Your task to perform on an android device: change keyboard looks Image 0: 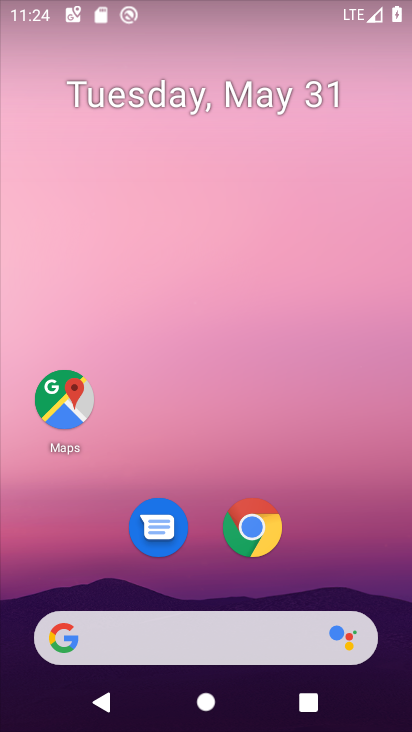
Step 0: drag from (345, 606) to (343, 24)
Your task to perform on an android device: change keyboard looks Image 1: 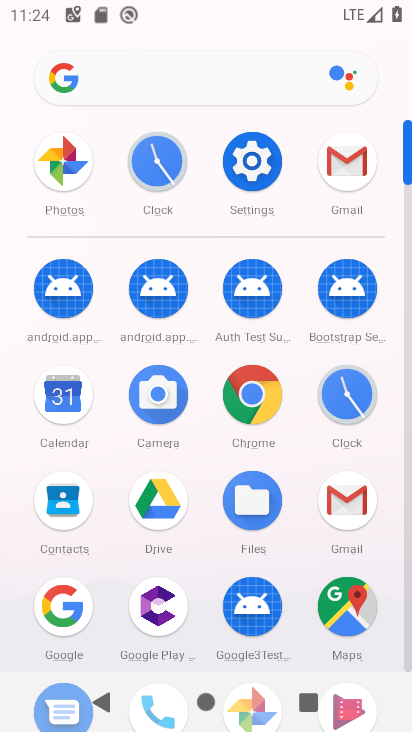
Step 1: click (242, 159)
Your task to perform on an android device: change keyboard looks Image 2: 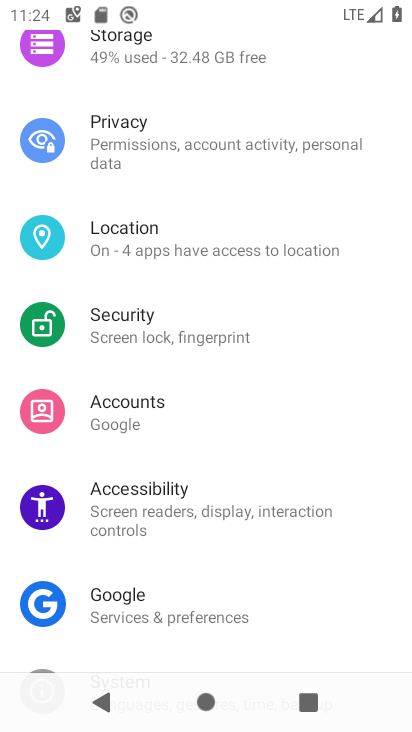
Step 2: drag from (289, 607) to (300, 330)
Your task to perform on an android device: change keyboard looks Image 3: 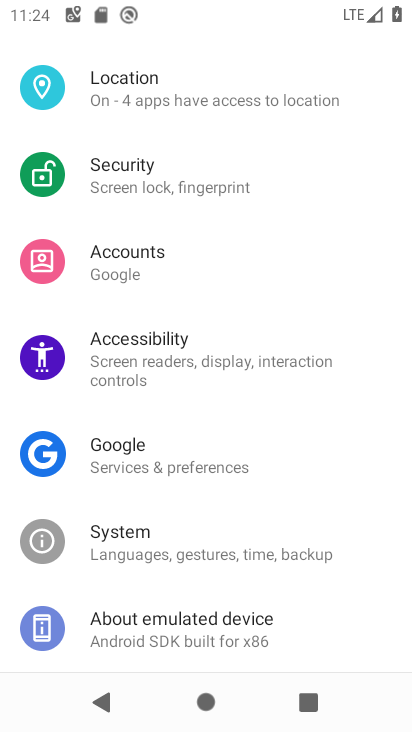
Step 3: click (123, 538)
Your task to perform on an android device: change keyboard looks Image 4: 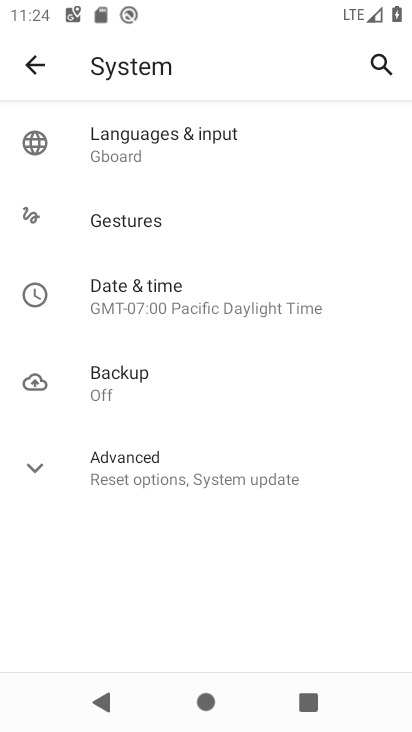
Step 4: click (122, 161)
Your task to perform on an android device: change keyboard looks Image 5: 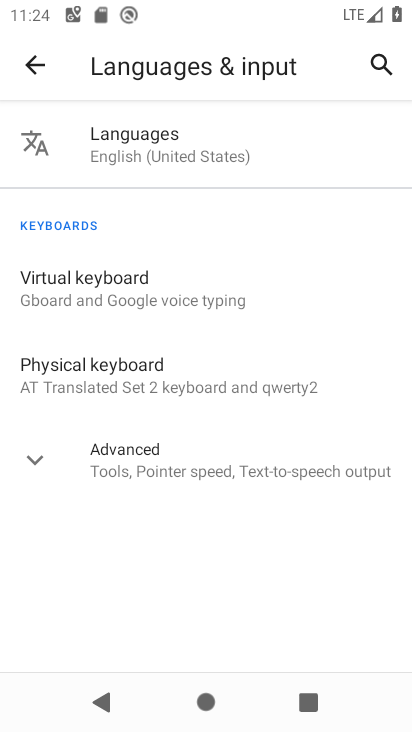
Step 5: click (69, 292)
Your task to perform on an android device: change keyboard looks Image 6: 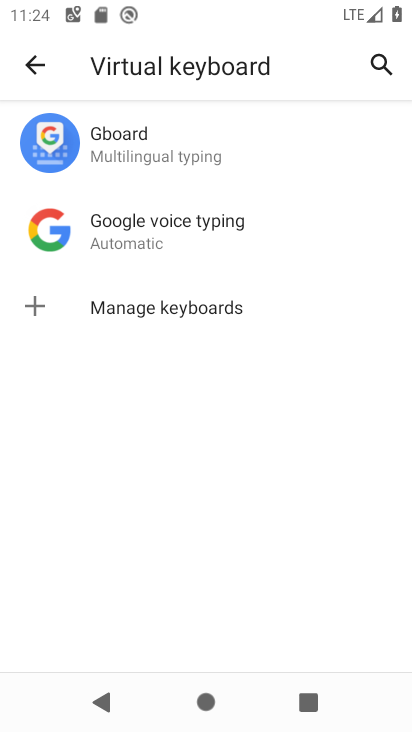
Step 6: click (124, 150)
Your task to perform on an android device: change keyboard looks Image 7: 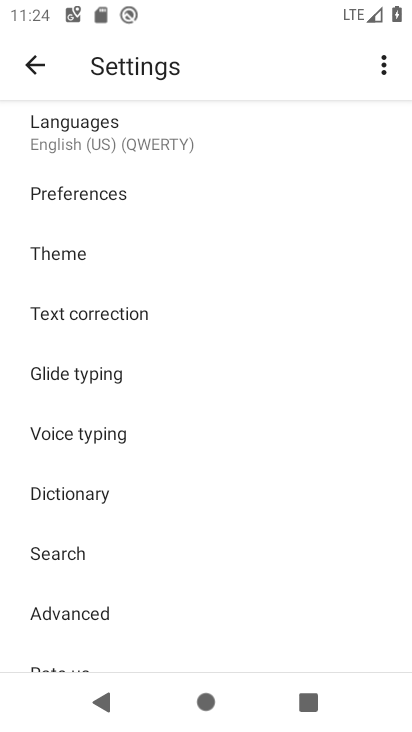
Step 7: click (76, 255)
Your task to perform on an android device: change keyboard looks Image 8: 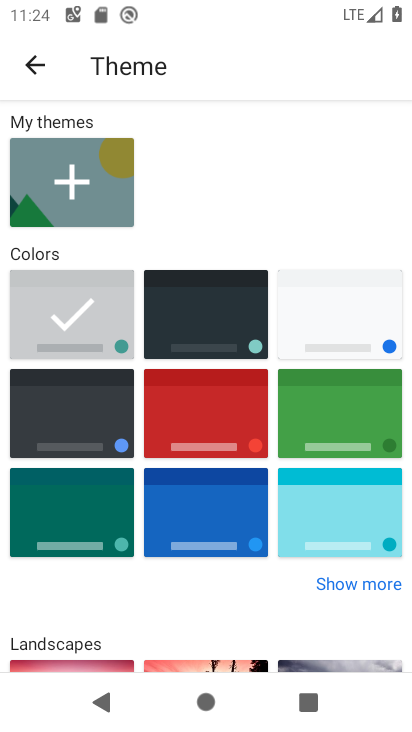
Step 8: click (185, 432)
Your task to perform on an android device: change keyboard looks Image 9: 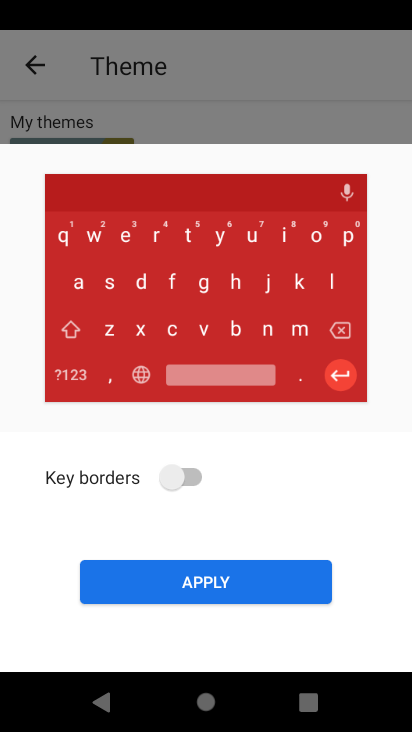
Step 9: click (181, 491)
Your task to perform on an android device: change keyboard looks Image 10: 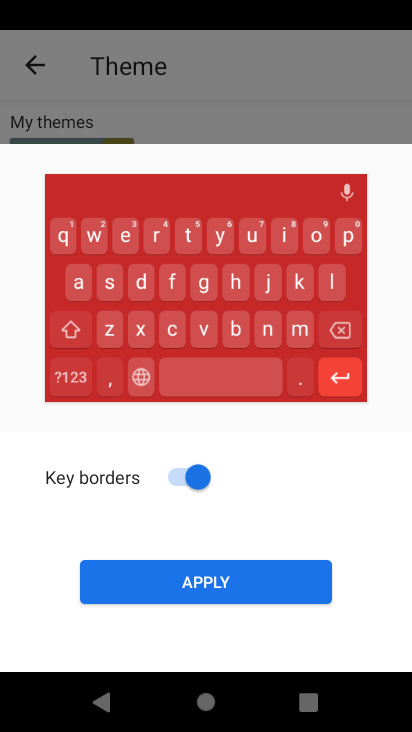
Step 10: click (190, 579)
Your task to perform on an android device: change keyboard looks Image 11: 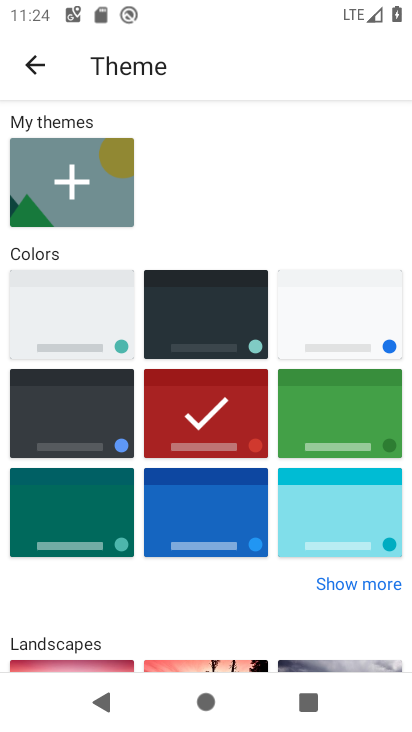
Step 11: task complete